Your task to perform on an android device: Open CNN.com Image 0: 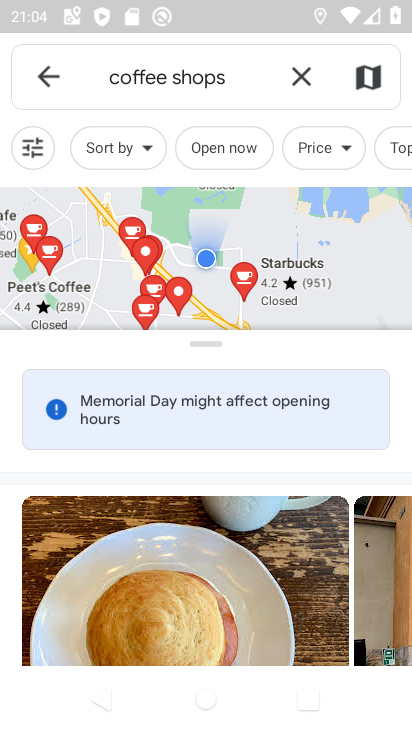
Step 0: press home button
Your task to perform on an android device: Open CNN.com Image 1: 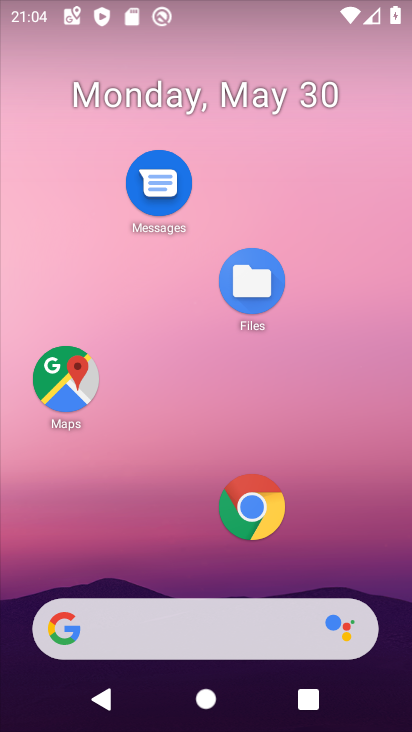
Step 1: click (248, 505)
Your task to perform on an android device: Open CNN.com Image 2: 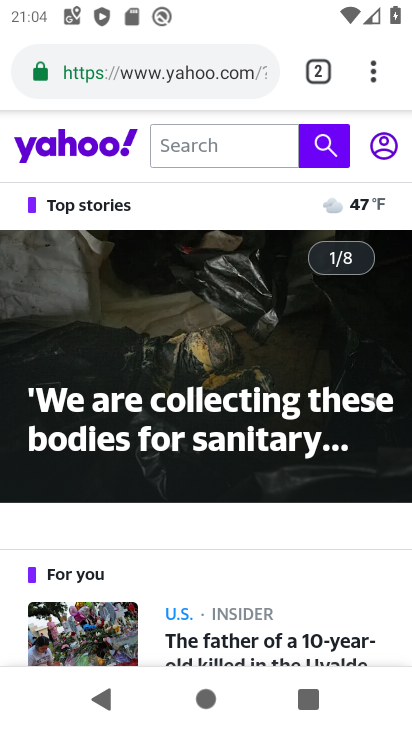
Step 2: click (142, 83)
Your task to perform on an android device: Open CNN.com Image 3: 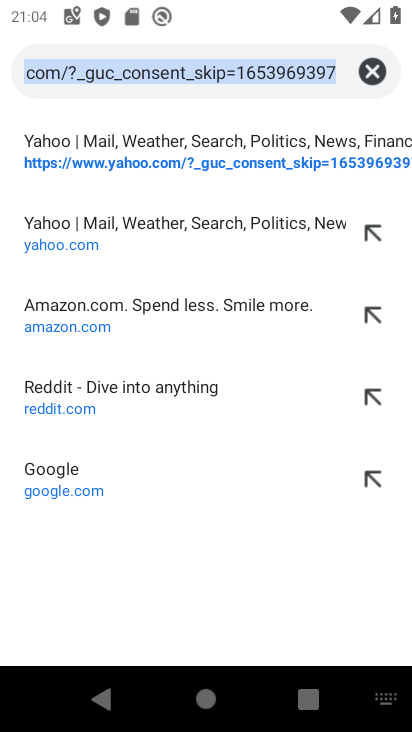
Step 3: type "CNN.com"
Your task to perform on an android device: Open CNN.com Image 4: 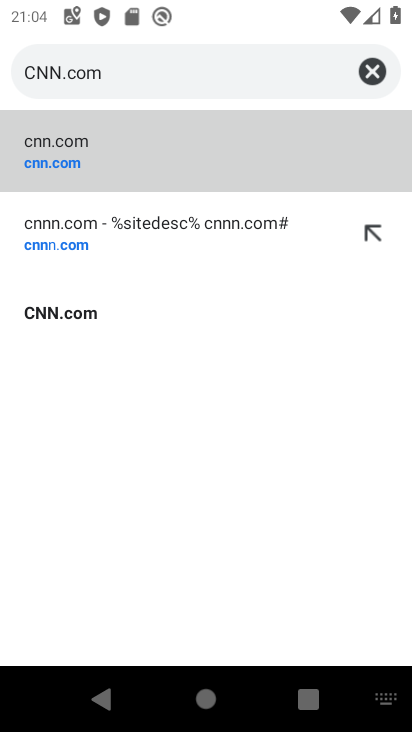
Step 4: click (168, 163)
Your task to perform on an android device: Open CNN.com Image 5: 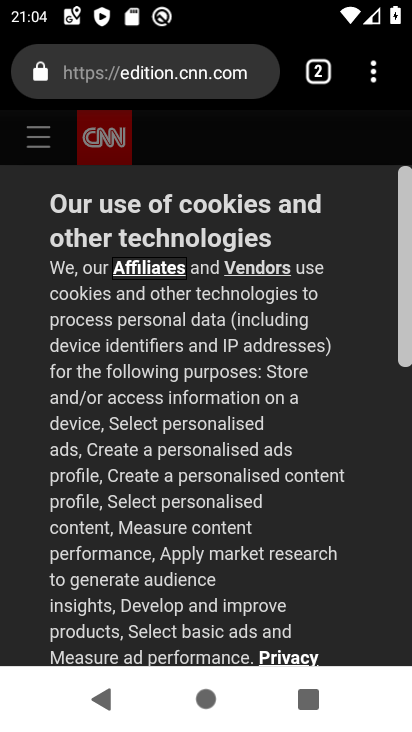
Step 5: task complete